Your task to perform on an android device: Empty the shopping cart on newegg.com. Add "razer blade" to the cart on newegg.com Image 0: 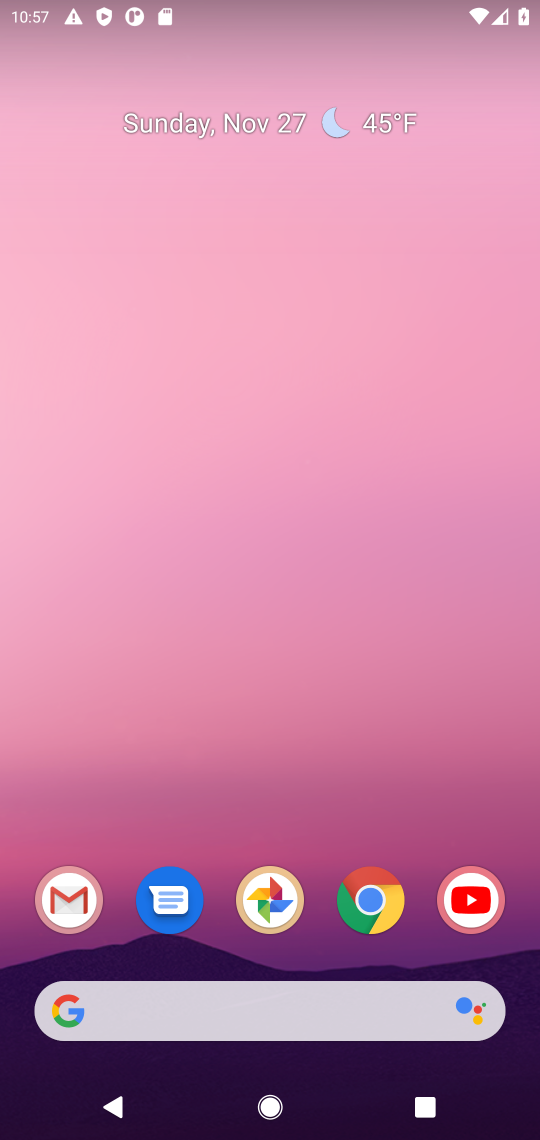
Step 0: click (371, 903)
Your task to perform on an android device: Empty the shopping cart on newegg.com. Add "razer blade" to the cart on newegg.com Image 1: 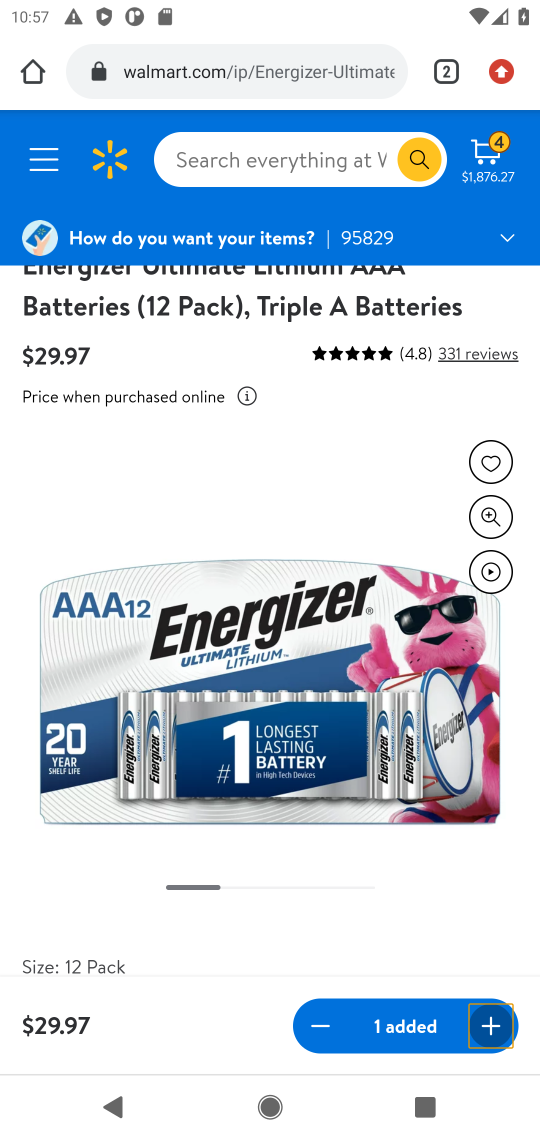
Step 1: click (183, 73)
Your task to perform on an android device: Empty the shopping cart on newegg.com. Add "razer blade" to the cart on newegg.com Image 2: 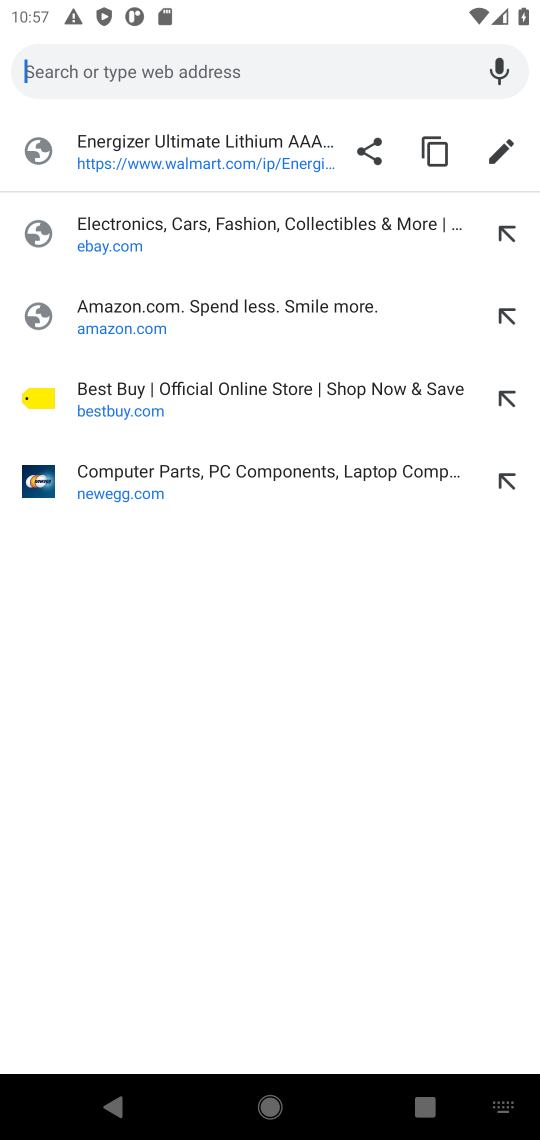
Step 2: click (84, 489)
Your task to perform on an android device: Empty the shopping cart on newegg.com. Add "razer blade" to the cart on newegg.com Image 3: 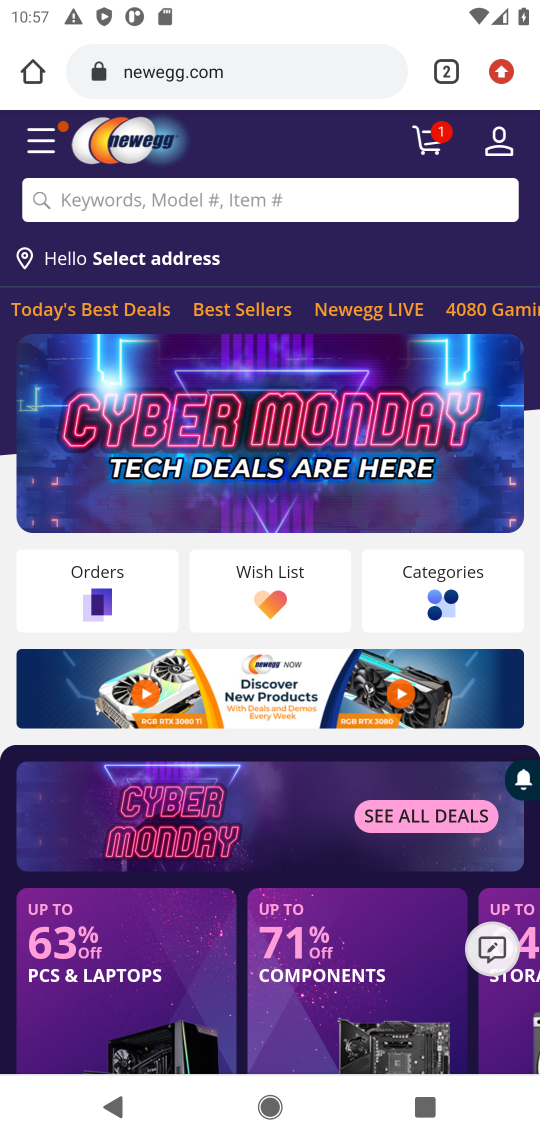
Step 3: click (428, 140)
Your task to perform on an android device: Empty the shopping cart on newegg.com. Add "razer blade" to the cart on newegg.com Image 4: 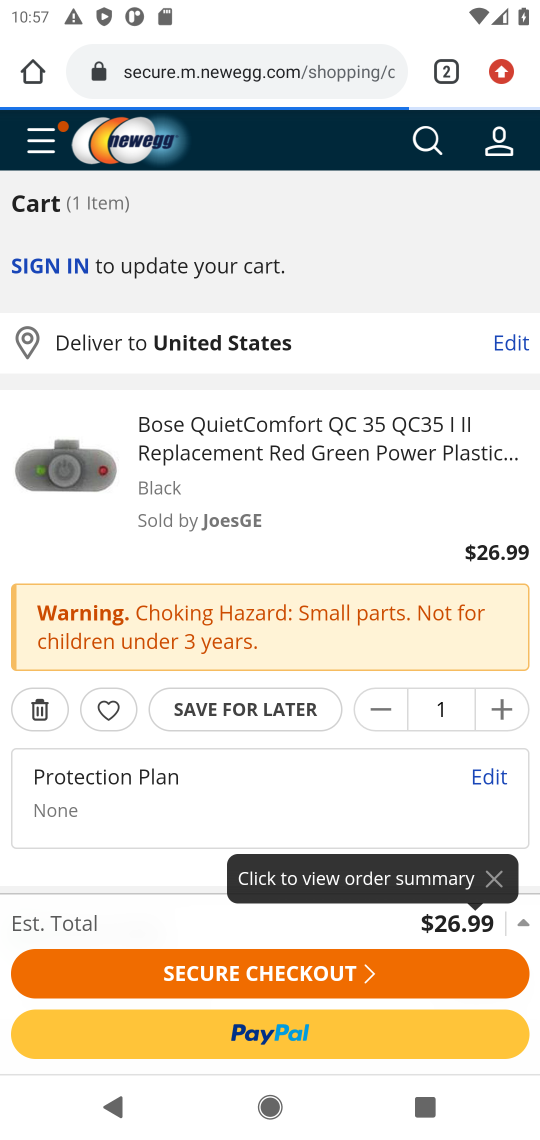
Step 4: click (34, 712)
Your task to perform on an android device: Empty the shopping cart on newegg.com. Add "razer blade" to the cart on newegg.com Image 5: 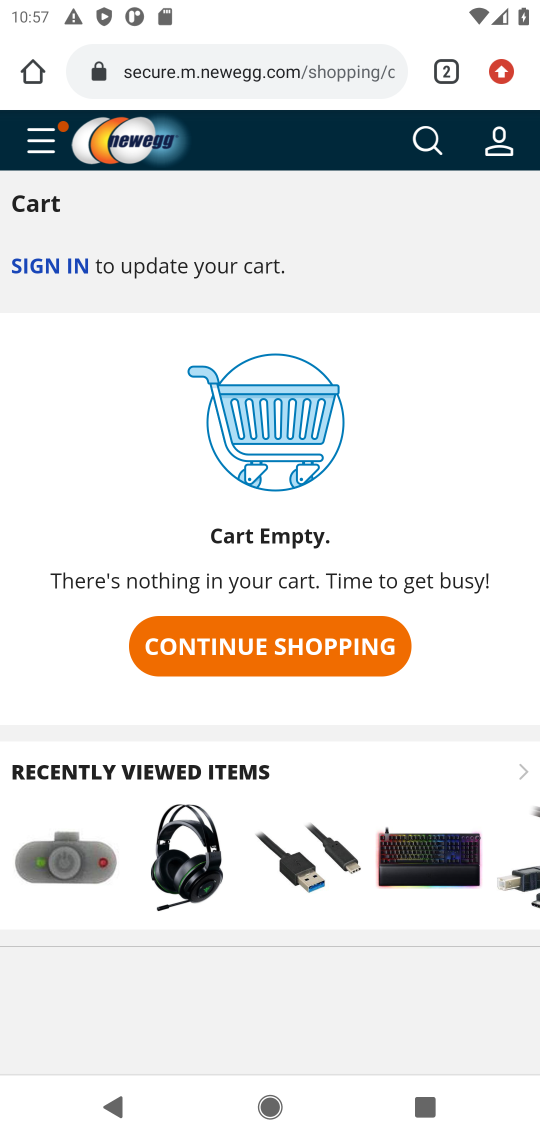
Step 5: click (423, 148)
Your task to perform on an android device: Empty the shopping cart on newegg.com. Add "razer blade" to the cart on newegg.com Image 6: 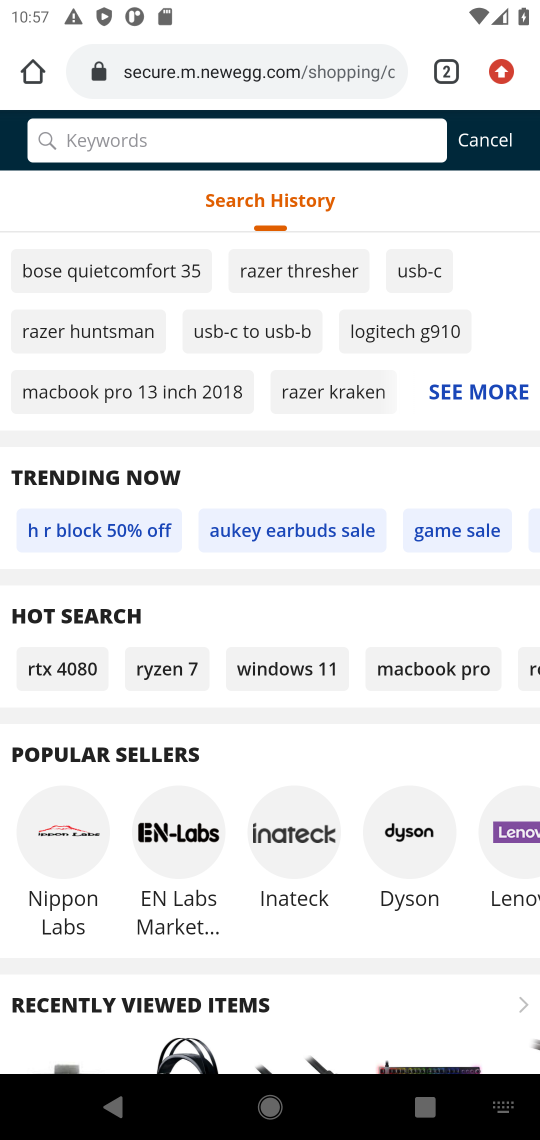
Step 6: type "razer blade"
Your task to perform on an android device: Empty the shopping cart on newegg.com. Add "razer blade" to the cart on newegg.com Image 7: 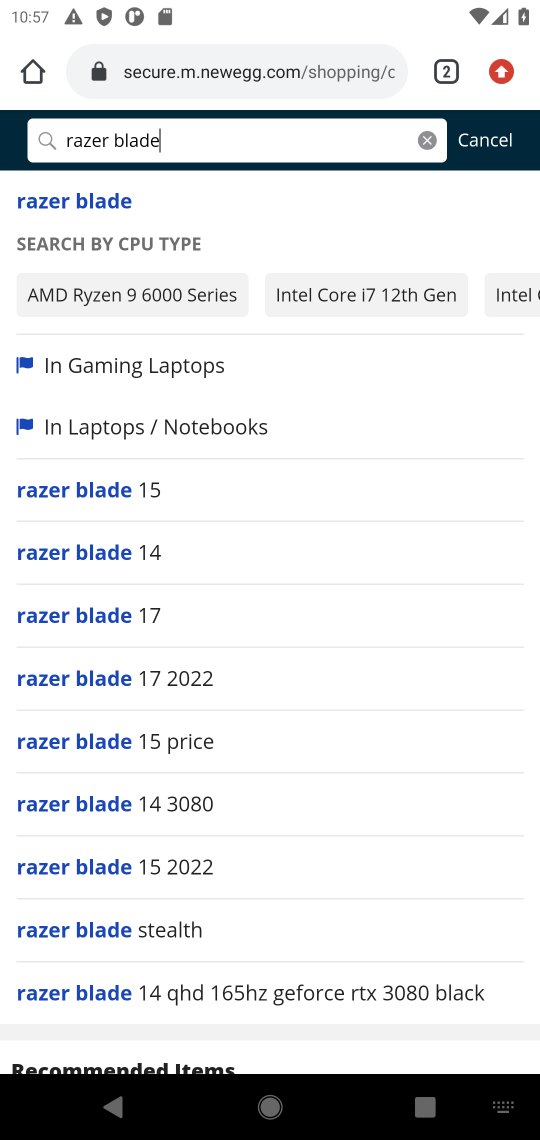
Step 7: click (98, 205)
Your task to perform on an android device: Empty the shopping cart on newegg.com. Add "razer blade" to the cart on newegg.com Image 8: 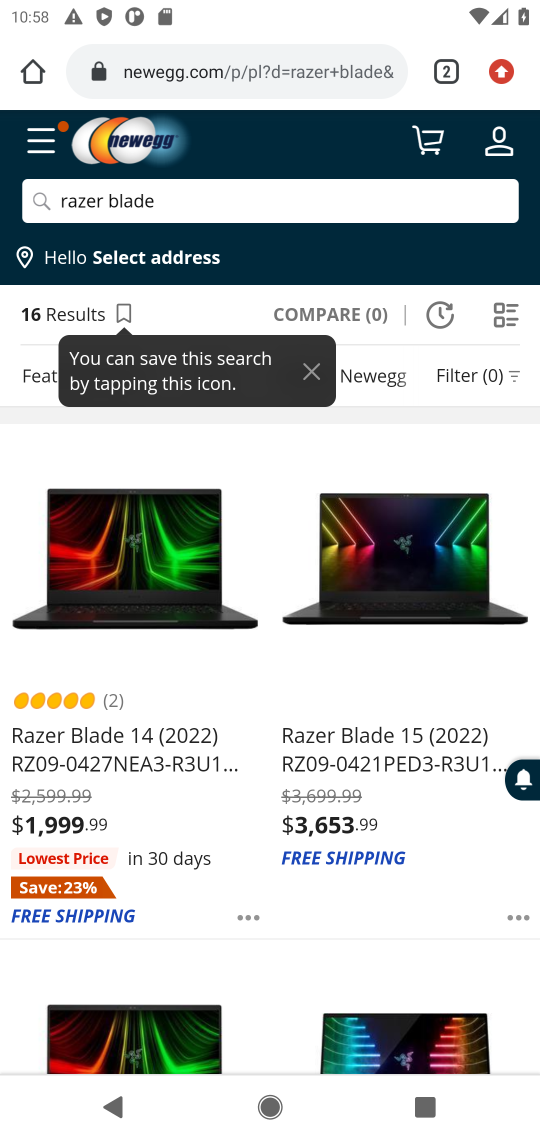
Step 8: click (135, 668)
Your task to perform on an android device: Empty the shopping cart on newegg.com. Add "razer blade" to the cart on newegg.com Image 9: 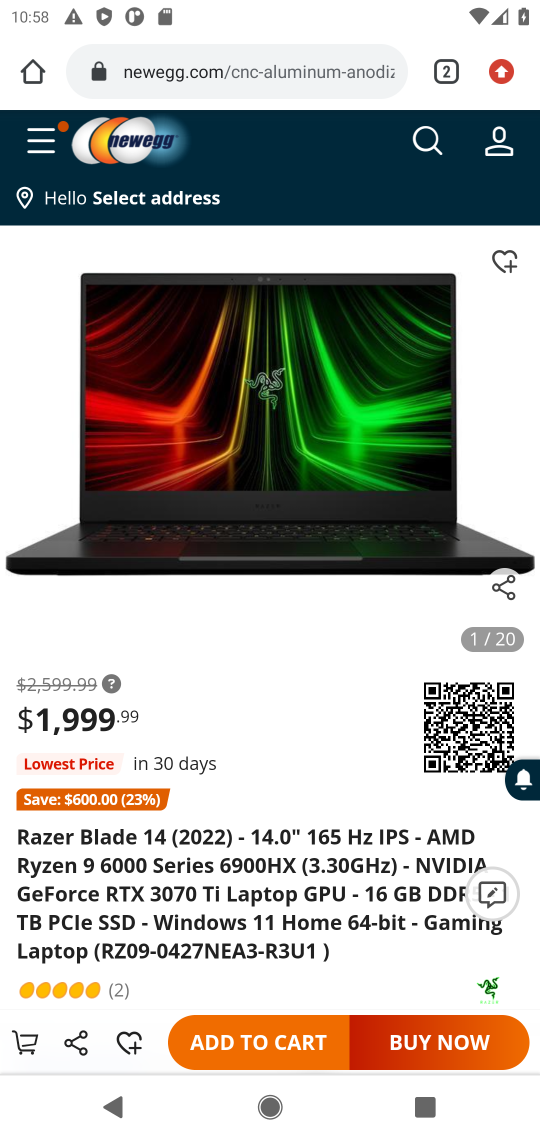
Step 9: click (246, 1051)
Your task to perform on an android device: Empty the shopping cart on newegg.com. Add "razer blade" to the cart on newegg.com Image 10: 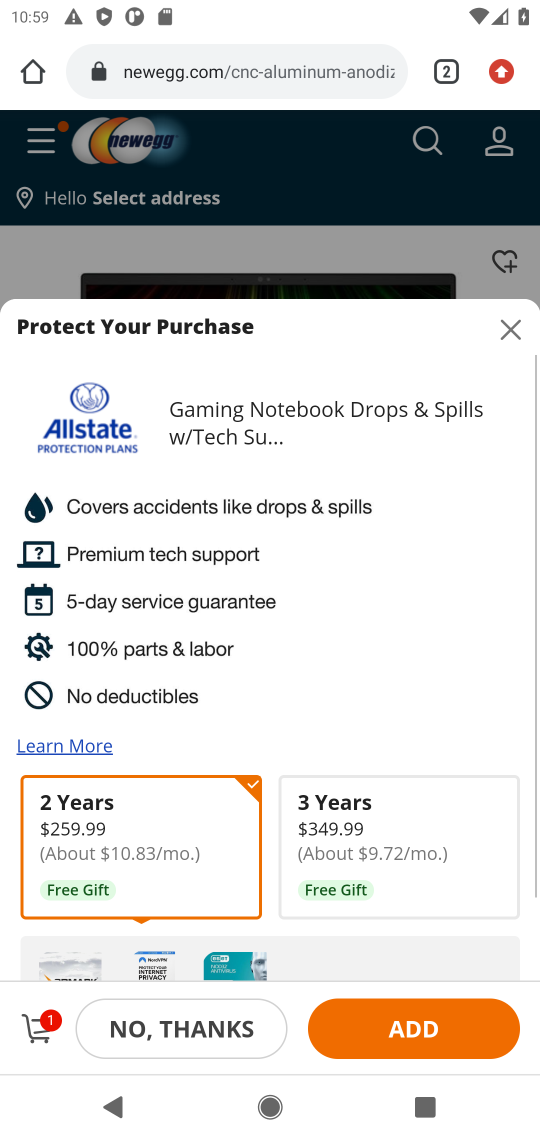
Step 10: click (518, 332)
Your task to perform on an android device: Empty the shopping cart on newegg.com. Add "razer blade" to the cart on newegg.com Image 11: 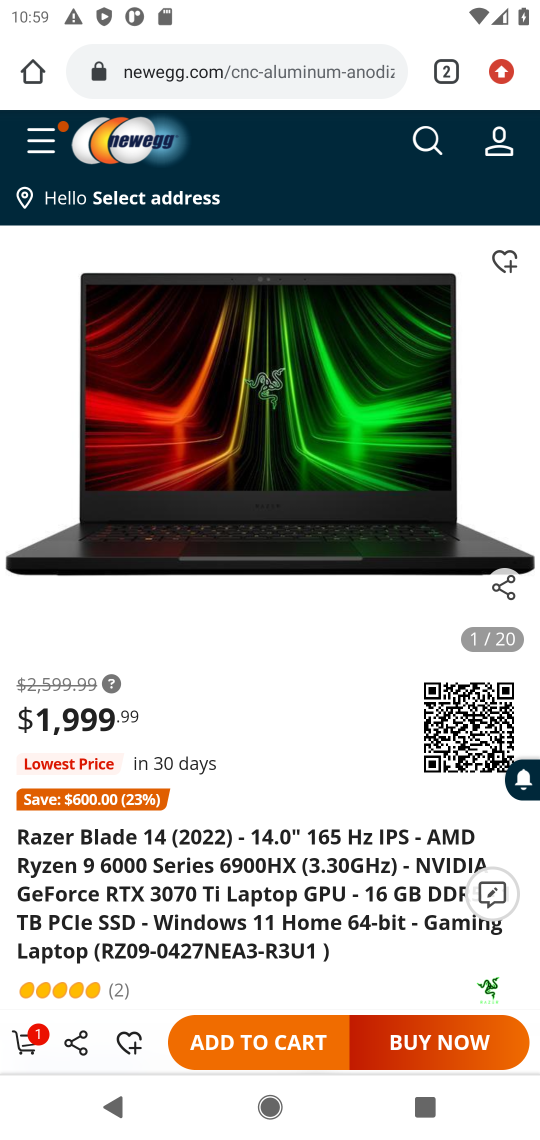
Step 11: task complete